Your task to perform on an android device: Open Yahoo.com Image 0: 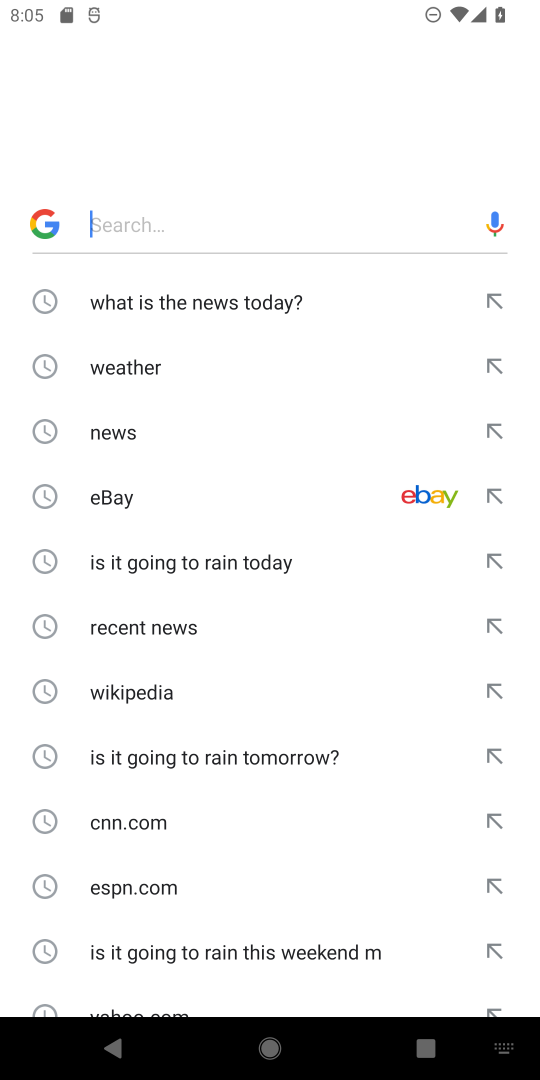
Step 0: press home button
Your task to perform on an android device: Open Yahoo.com Image 1: 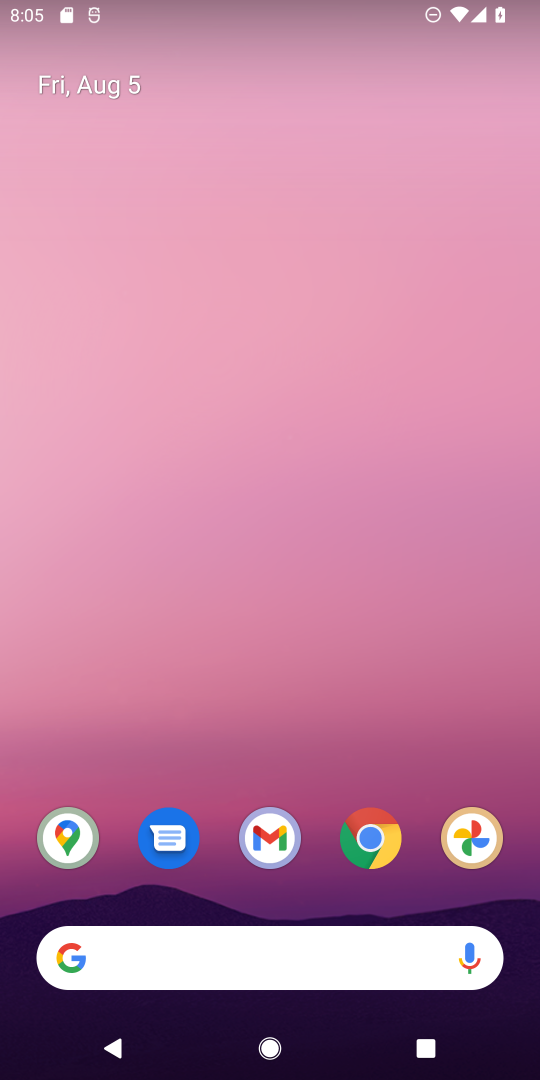
Step 1: click (363, 864)
Your task to perform on an android device: Open Yahoo.com Image 2: 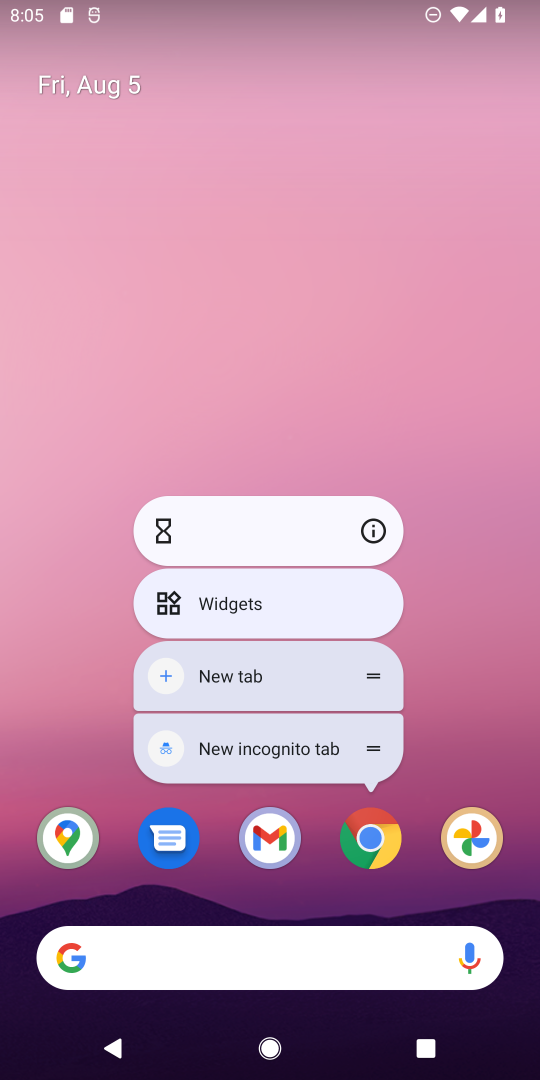
Step 2: click (371, 844)
Your task to perform on an android device: Open Yahoo.com Image 3: 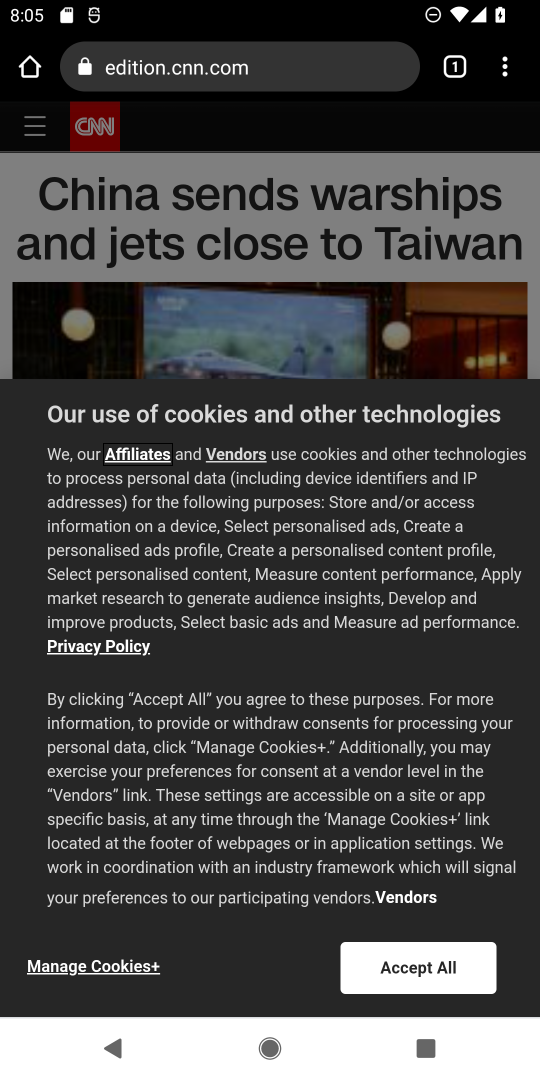
Step 3: click (457, 67)
Your task to perform on an android device: Open Yahoo.com Image 4: 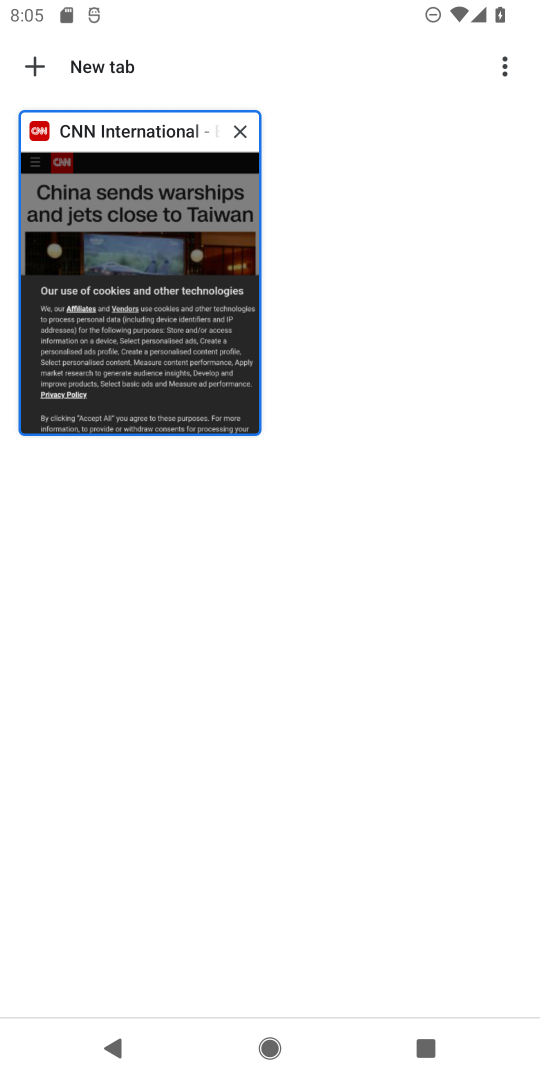
Step 4: click (237, 129)
Your task to perform on an android device: Open Yahoo.com Image 5: 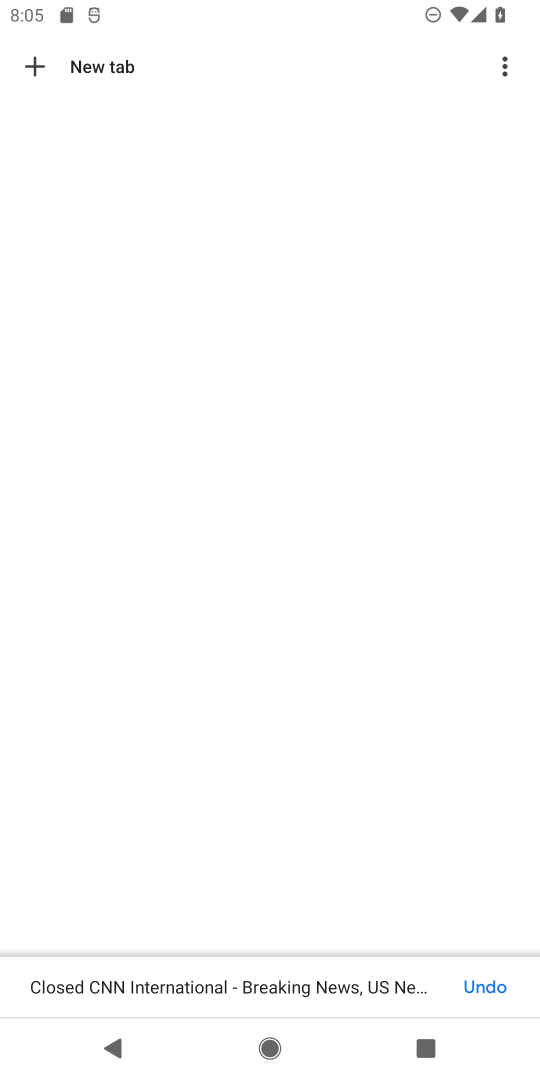
Step 5: click (28, 68)
Your task to perform on an android device: Open Yahoo.com Image 6: 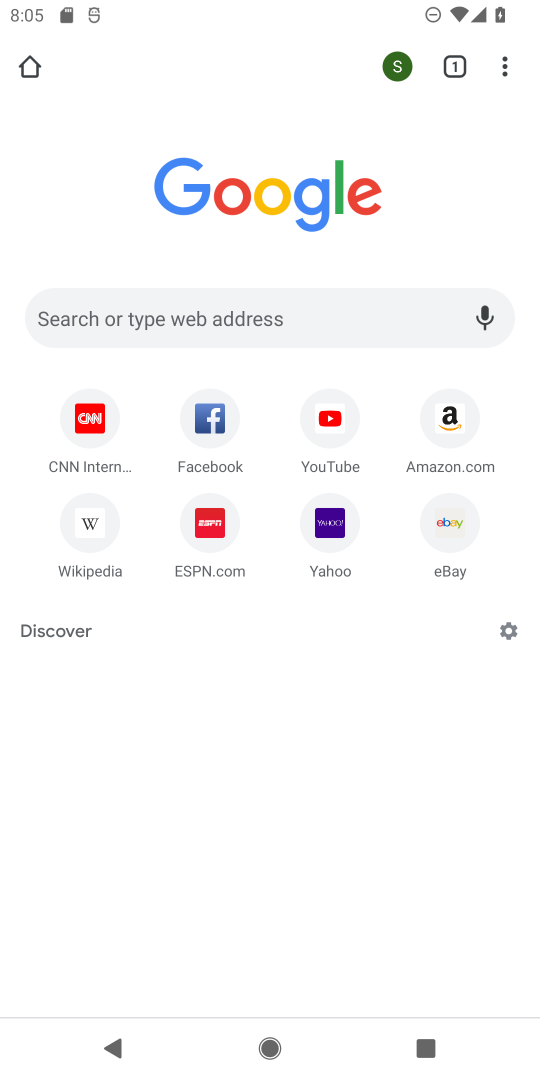
Step 6: click (324, 532)
Your task to perform on an android device: Open Yahoo.com Image 7: 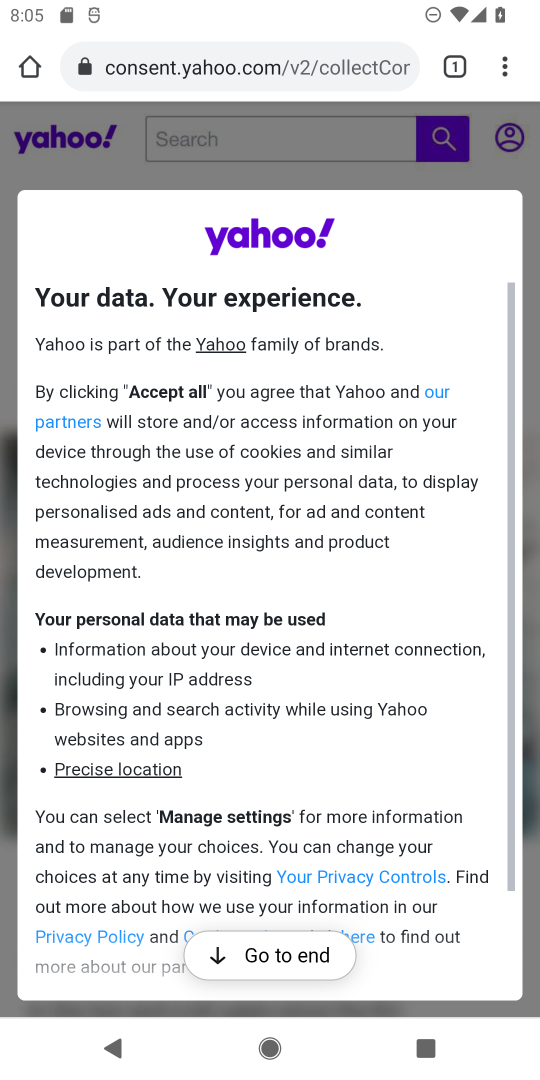
Step 7: task complete